Your task to perform on an android device: Toggle the flashlight Image 0: 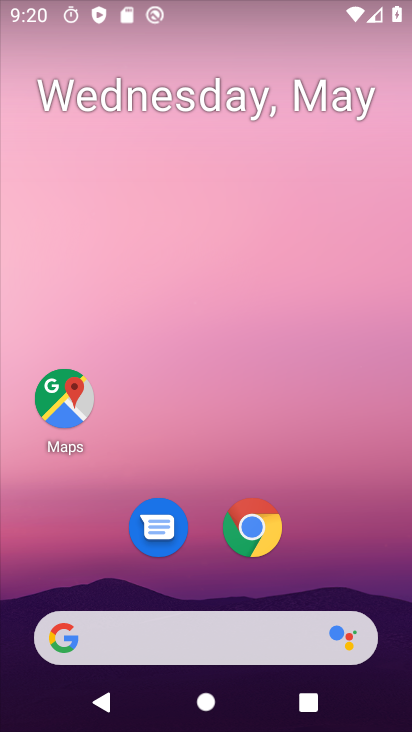
Step 0: drag from (217, 8) to (284, 411)
Your task to perform on an android device: Toggle the flashlight Image 1: 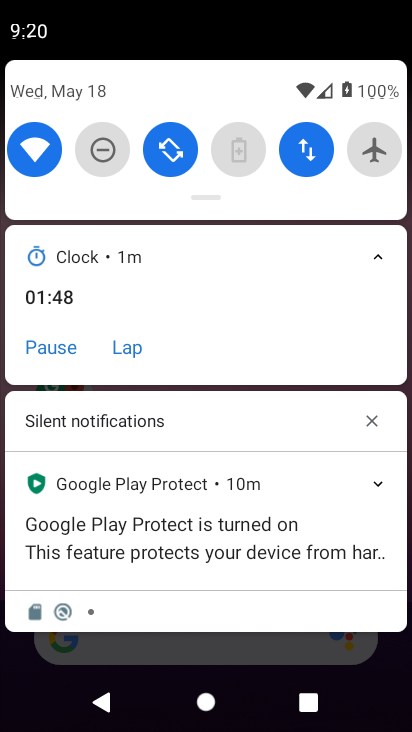
Step 1: task complete